Your task to perform on an android device: Open sound settings Image 0: 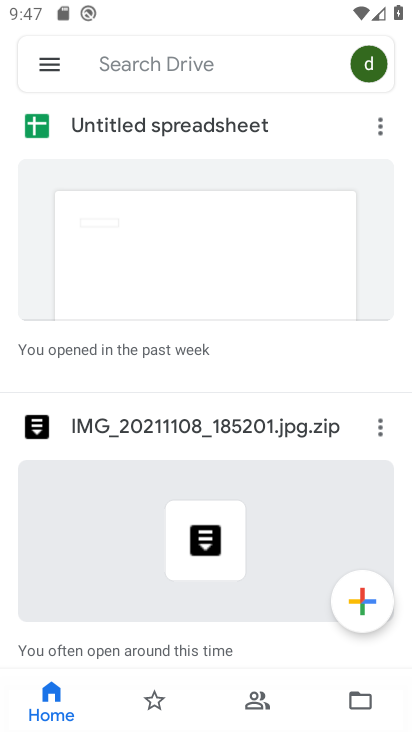
Step 0: press home button
Your task to perform on an android device: Open sound settings Image 1: 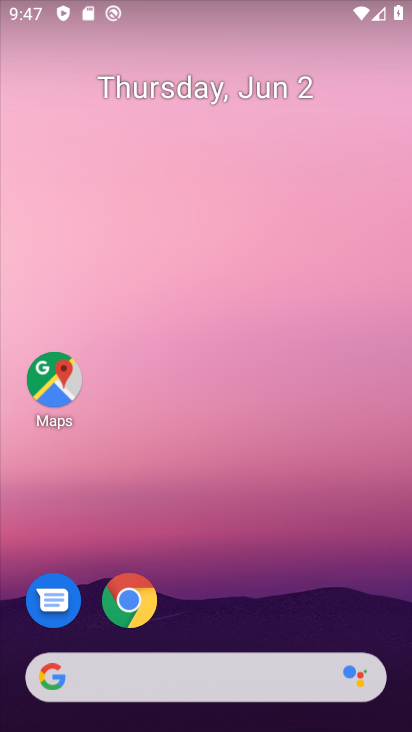
Step 1: drag from (115, 305) to (114, 207)
Your task to perform on an android device: Open sound settings Image 2: 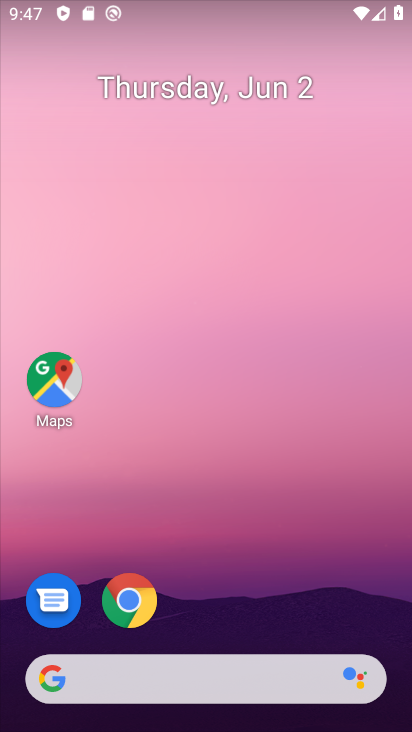
Step 2: drag from (109, 728) to (135, 17)
Your task to perform on an android device: Open sound settings Image 3: 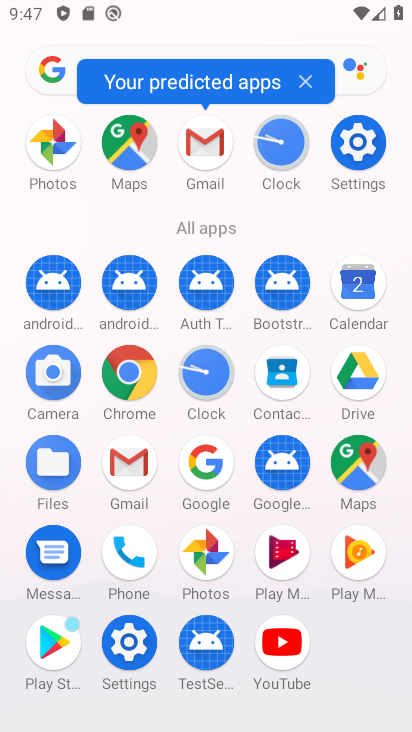
Step 3: click (132, 654)
Your task to perform on an android device: Open sound settings Image 4: 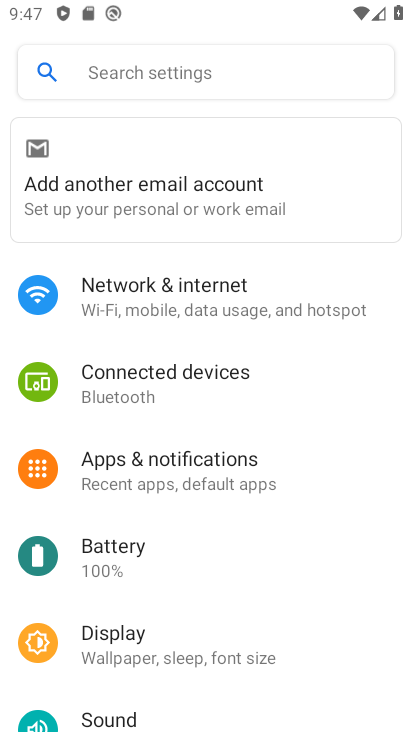
Step 4: click (168, 724)
Your task to perform on an android device: Open sound settings Image 5: 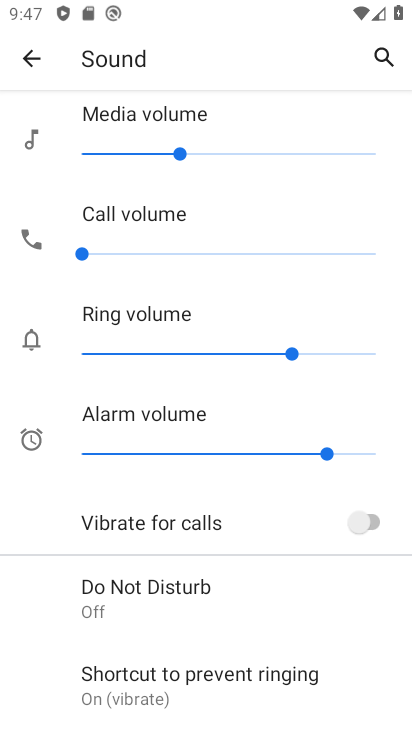
Step 5: task complete